Your task to perform on an android device: turn on improve location accuracy Image 0: 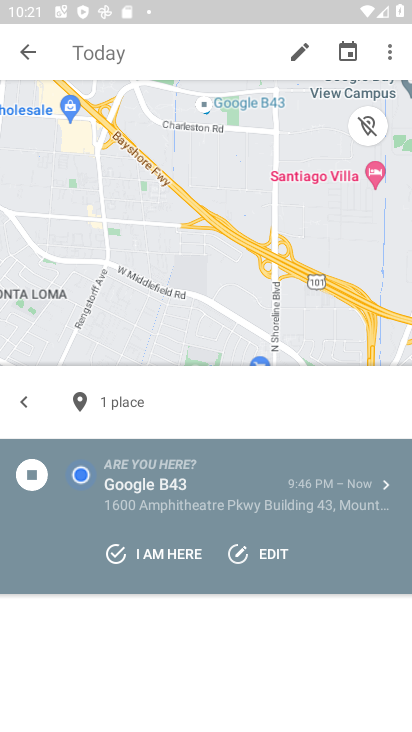
Step 0: press home button
Your task to perform on an android device: turn on improve location accuracy Image 1: 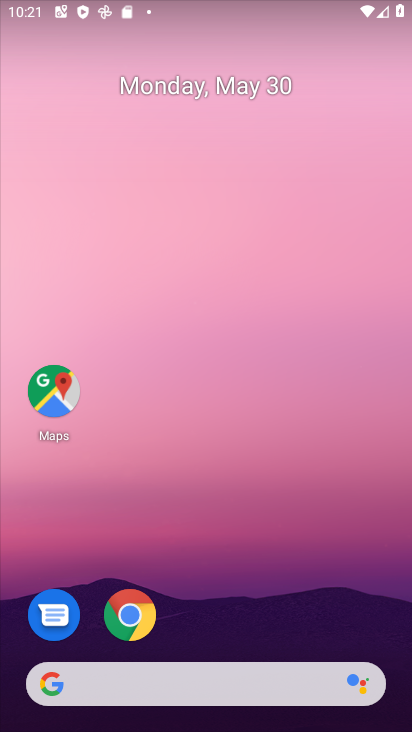
Step 1: drag from (300, 457) to (122, 9)
Your task to perform on an android device: turn on improve location accuracy Image 2: 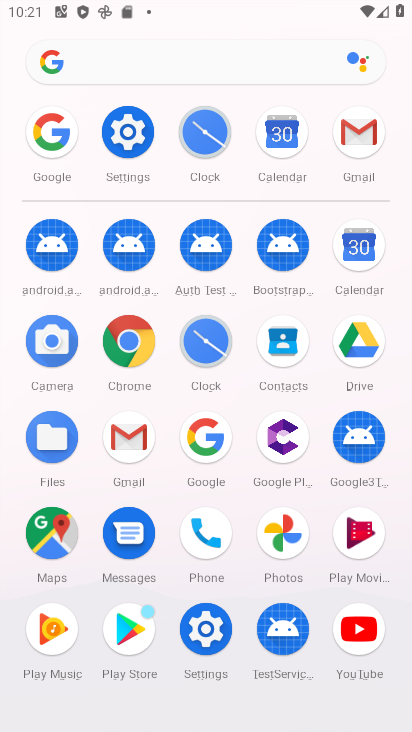
Step 2: click (126, 134)
Your task to perform on an android device: turn on improve location accuracy Image 3: 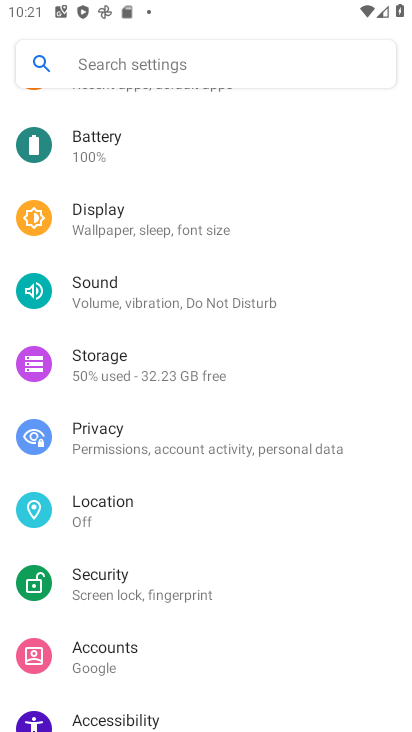
Step 3: click (146, 510)
Your task to perform on an android device: turn on improve location accuracy Image 4: 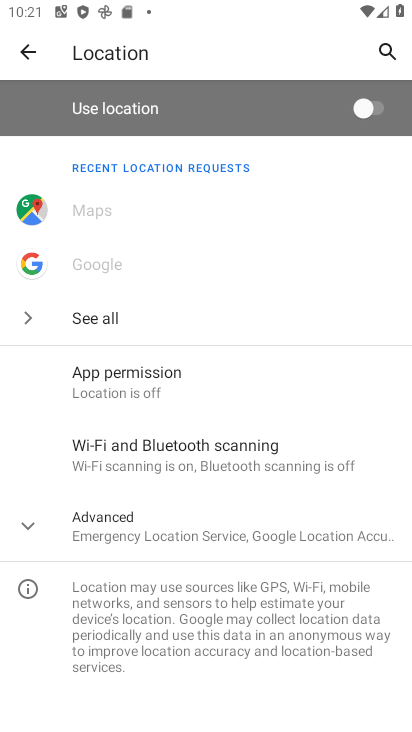
Step 4: click (198, 519)
Your task to perform on an android device: turn on improve location accuracy Image 5: 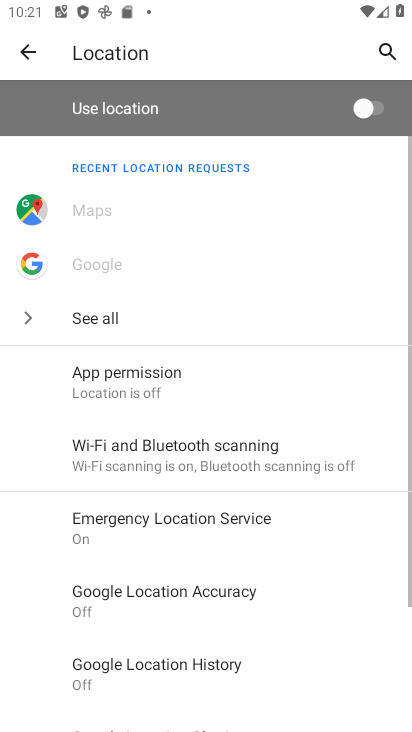
Step 5: drag from (208, 679) to (227, 236)
Your task to perform on an android device: turn on improve location accuracy Image 6: 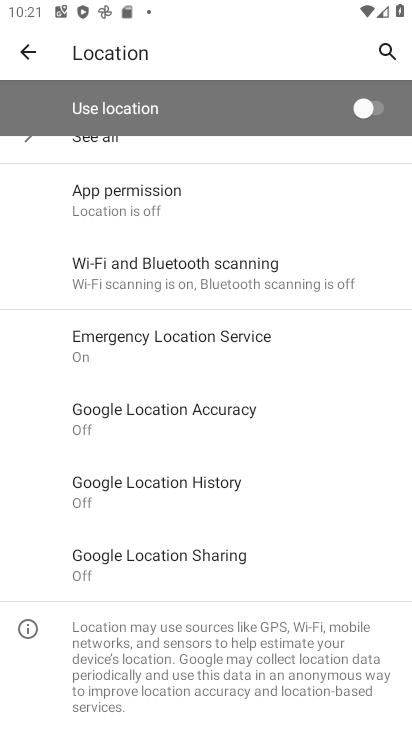
Step 6: click (212, 410)
Your task to perform on an android device: turn on improve location accuracy Image 7: 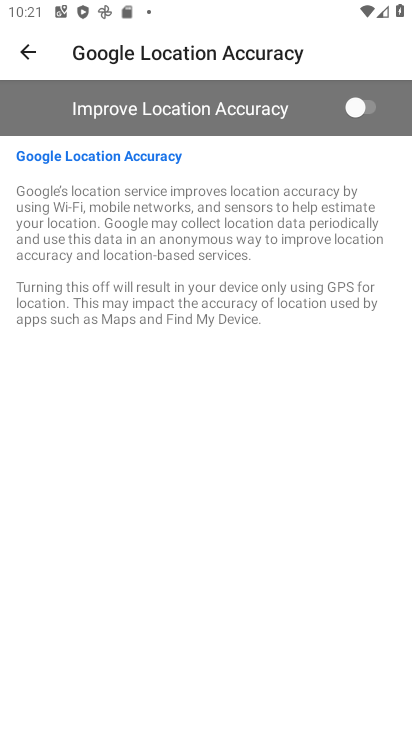
Step 7: click (225, 412)
Your task to perform on an android device: turn on improve location accuracy Image 8: 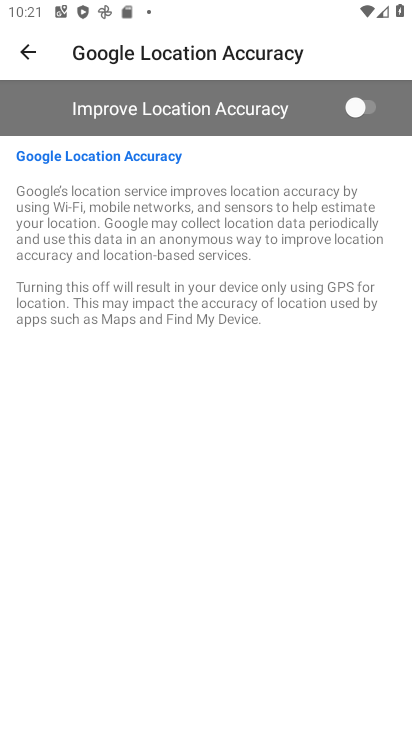
Step 8: drag from (236, 502) to (261, 268)
Your task to perform on an android device: turn on improve location accuracy Image 9: 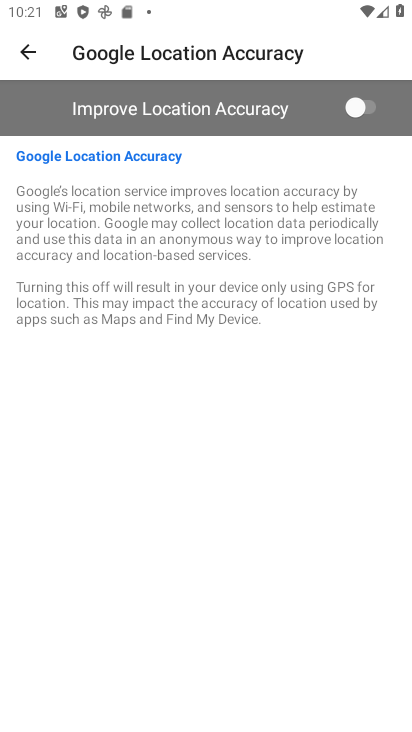
Step 9: click (361, 109)
Your task to perform on an android device: turn on improve location accuracy Image 10: 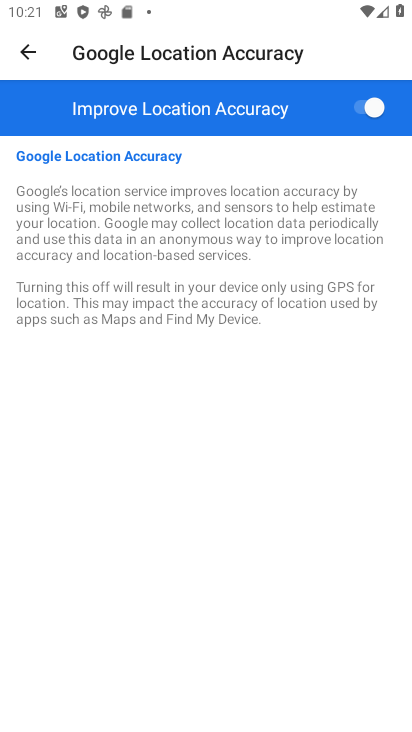
Step 10: task complete